Your task to perform on an android device: check the backup settings in the google photos Image 0: 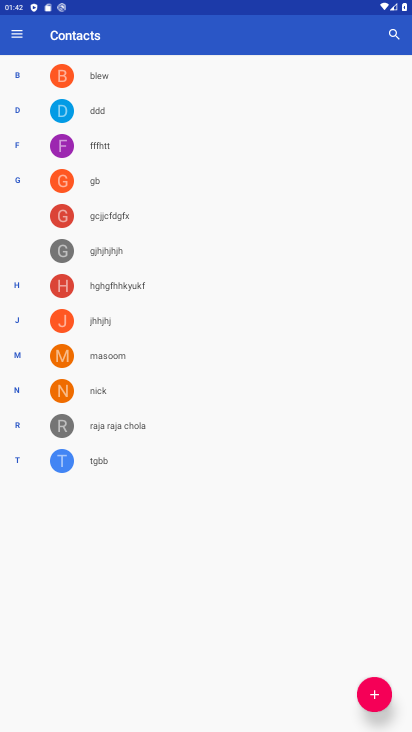
Step 0: press home button
Your task to perform on an android device: check the backup settings in the google photos Image 1: 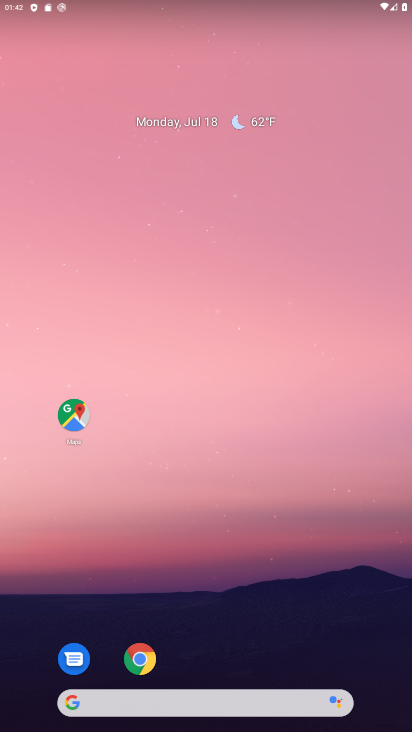
Step 1: drag from (266, 510) to (251, 34)
Your task to perform on an android device: check the backup settings in the google photos Image 2: 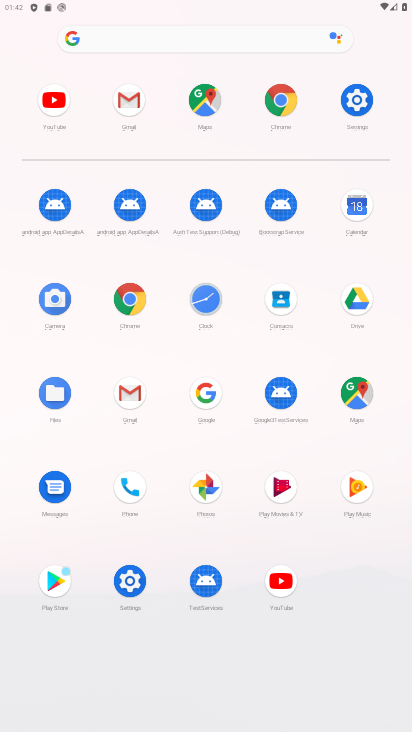
Step 2: click (211, 484)
Your task to perform on an android device: check the backup settings in the google photos Image 3: 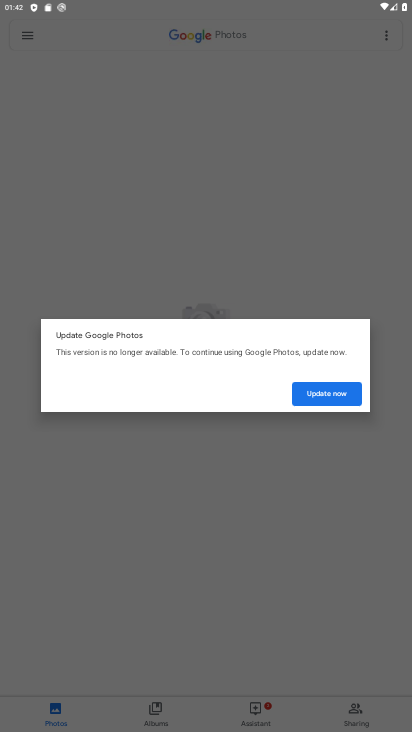
Step 3: click (345, 390)
Your task to perform on an android device: check the backup settings in the google photos Image 4: 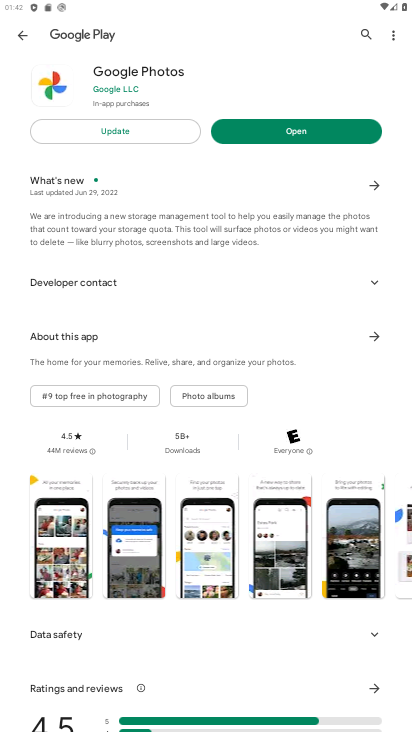
Step 4: click (159, 126)
Your task to perform on an android device: check the backup settings in the google photos Image 5: 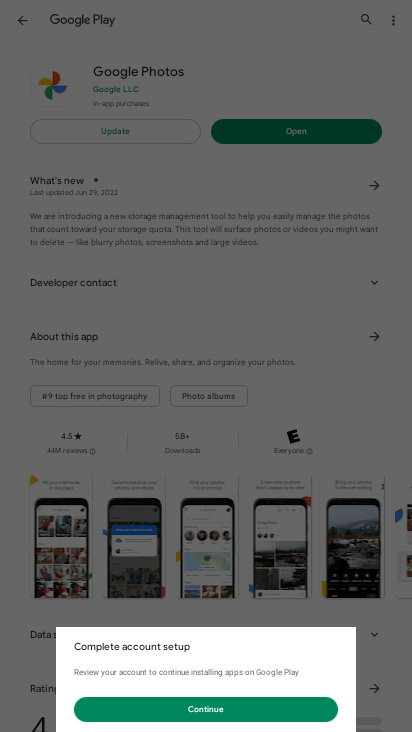
Step 5: click (280, 715)
Your task to perform on an android device: check the backup settings in the google photos Image 6: 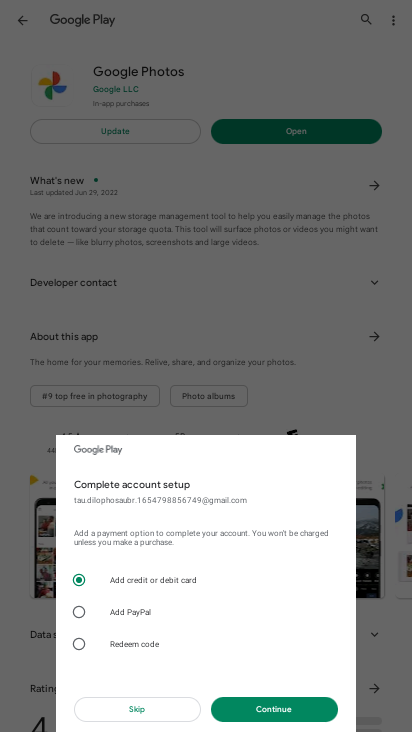
Step 6: click (132, 711)
Your task to perform on an android device: check the backup settings in the google photos Image 7: 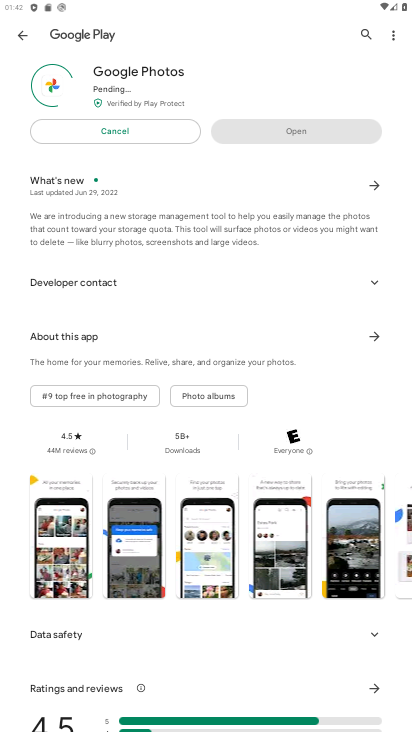
Step 7: task complete